Your task to perform on an android device: Go to accessibility settings Image 0: 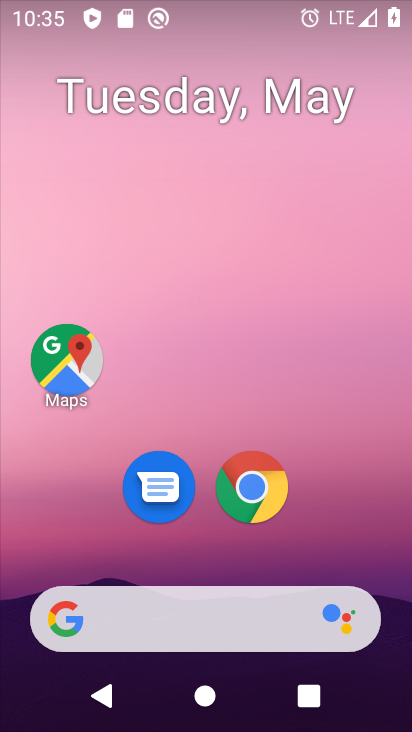
Step 0: drag from (191, 533) to (262, 0)
Your task to perform on an android device: Go to accessibility settings Image 1: 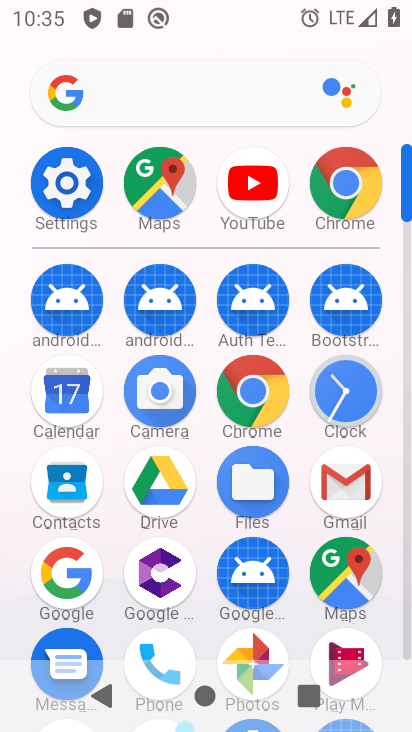
Step 1: click (44, 188)
Your task to perform on an android device: Go to accessibility settings Image 2: 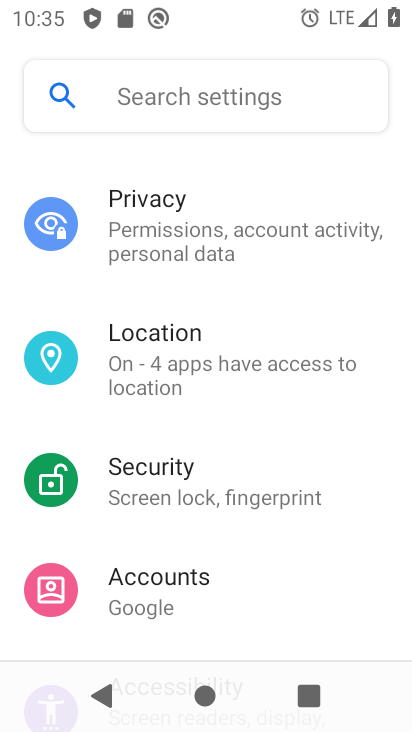
Step 2: drag from (208, 524) to (265, 32)
Your task to perform on an android device: Go to accessibility settings Image 3: 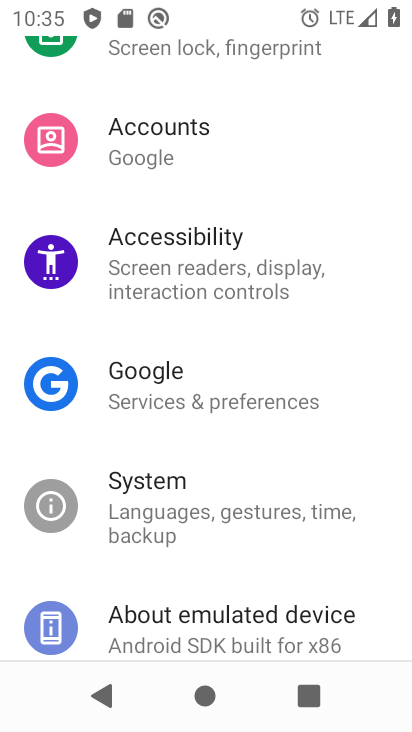
Step 3: click (207, 246)
Your task to perform on an android device: Go to accessibility settings Image 4: 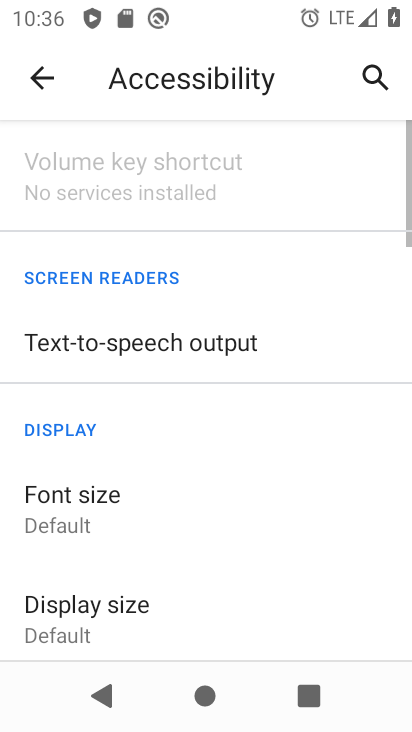
Step 4: task complete